Your task to perform on an android device: Open the stopwatch Image 0: 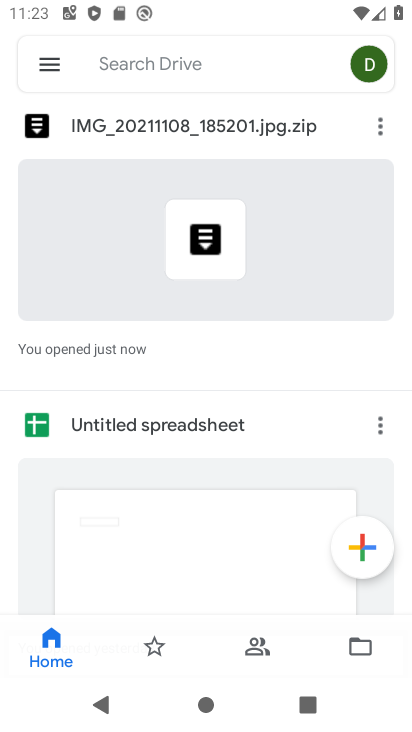
Step 0: press home button
Your task to perform on an android device: Open the stopwatch Image 1: 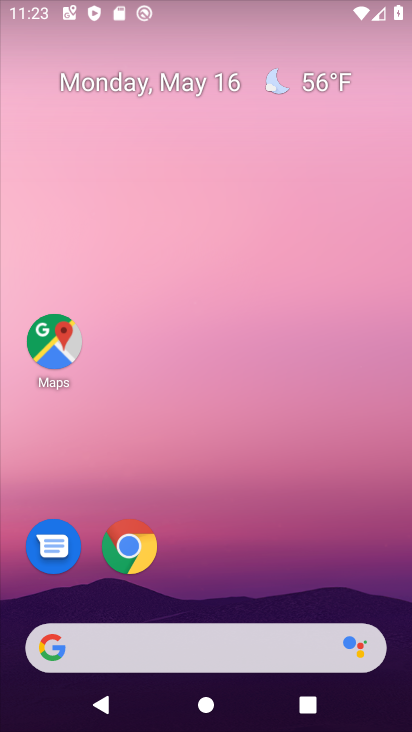
Step 1: drag from (308, 564) to (185, 21)
Your task to perform on an android device: Open the stopwatch Image 2: 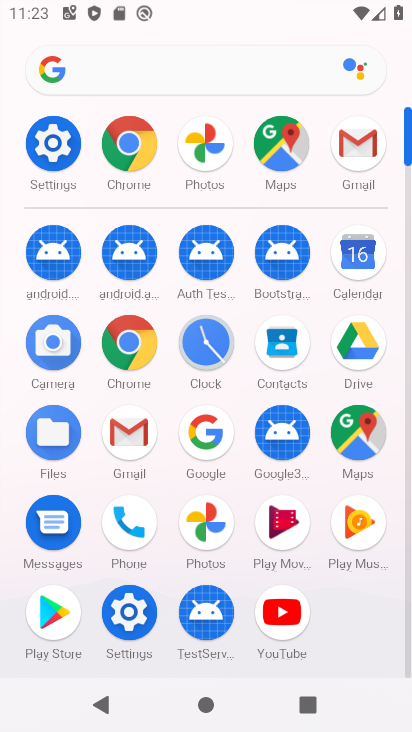
Step 2: click (202, 388)
Your task to perform on an android device: Open the stopwatch Image 3: 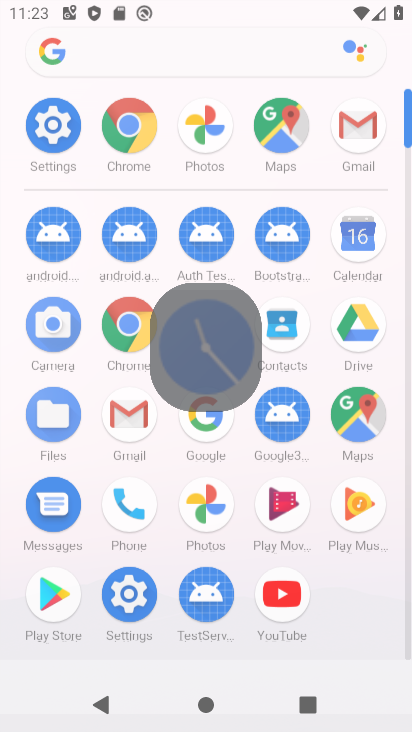
Step 3: click (198, 363)
Your task to perform on an android device: Open the stopwatch Image 4: 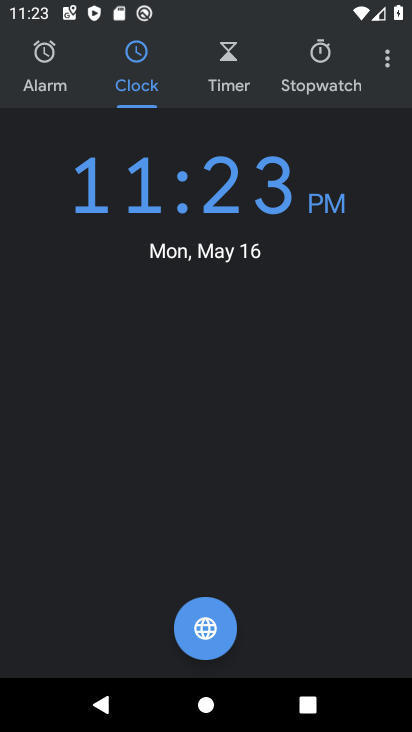
Step 4: click (297, 70)
Your task to perform on an android device: Open the stopwatch Image 5: 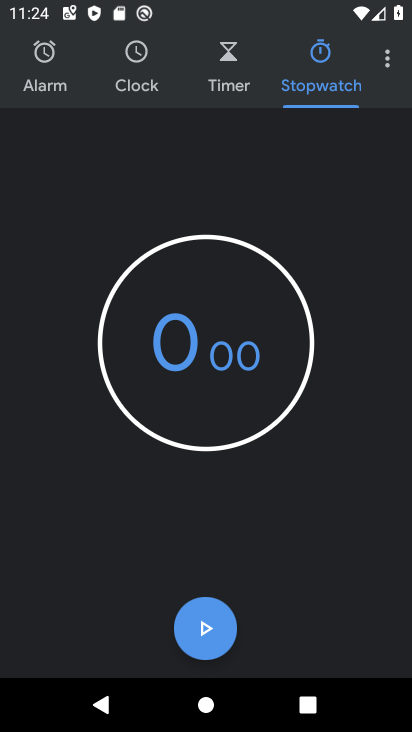
Step 5: click (214, 635)
Your task to perform on an android device: Open the stopwatch Image 6: 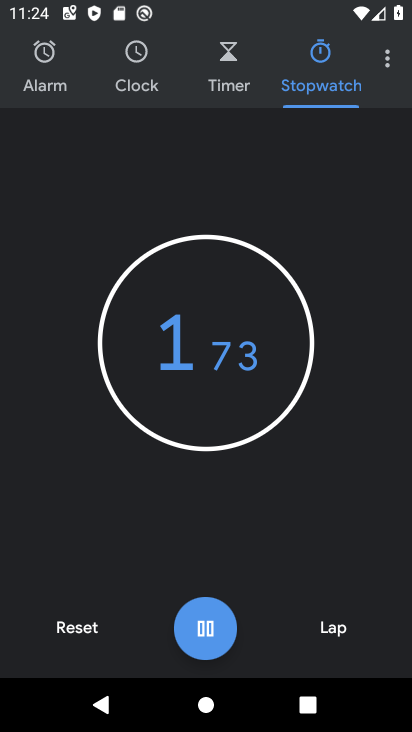
Step 6: task complete